Your task to perform on an android device: What's on my calendar today? Image 0: 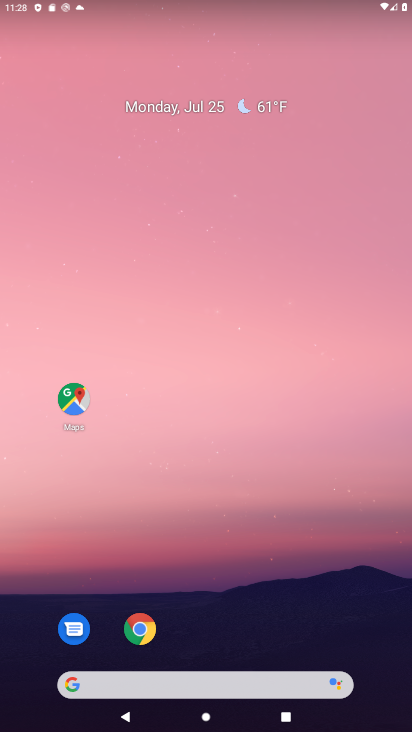
Step 0: drag from (214, 660) to (272, 94)
Your task to perform on an android device: What's on my calendar today? Image 1: 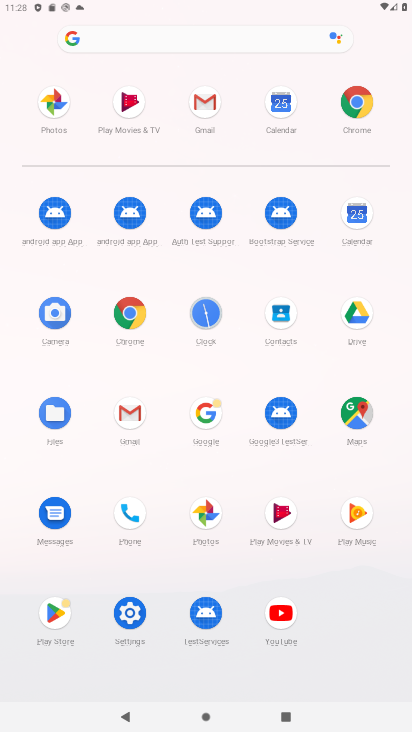
Step 1: click (357, 208)
Your task to perform on an android device: What's on my calendar today? Image 2: 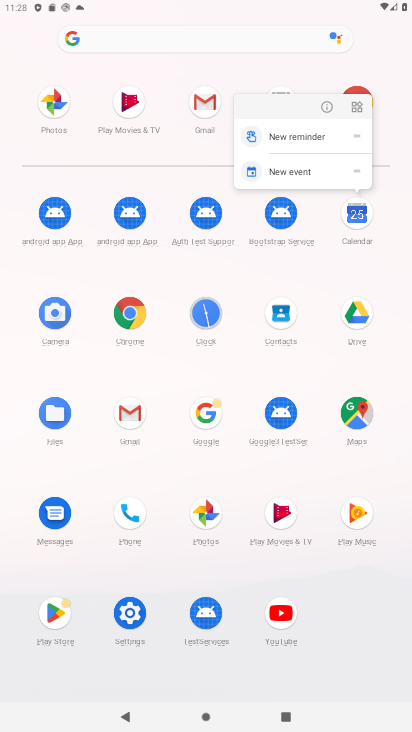
Step 2: click (320, 108)
Your task to perform on an android device: What's on my calendar today? Image 3: 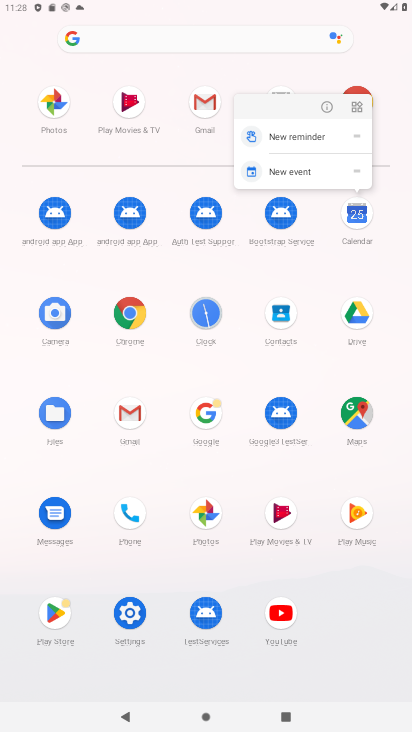
Step 3: click (320, 108)
Your task to perform on an android device: What's on my calendar today? Image 4: 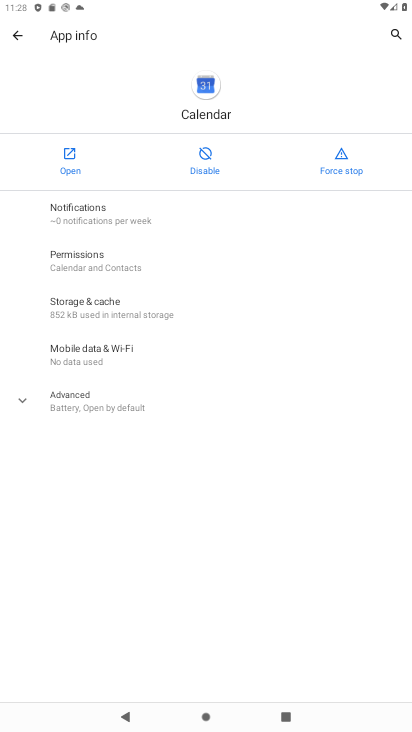
Step 4: click (72, 163)
Your task to perform on an android device: What's on my calendar today? Image 5: 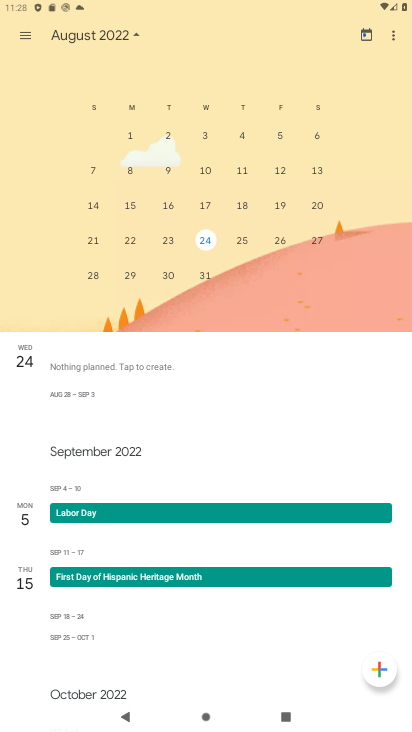
Step 5: click (369, 28)
Your task to perform on an android device: What's on my calendar today? Image 6: 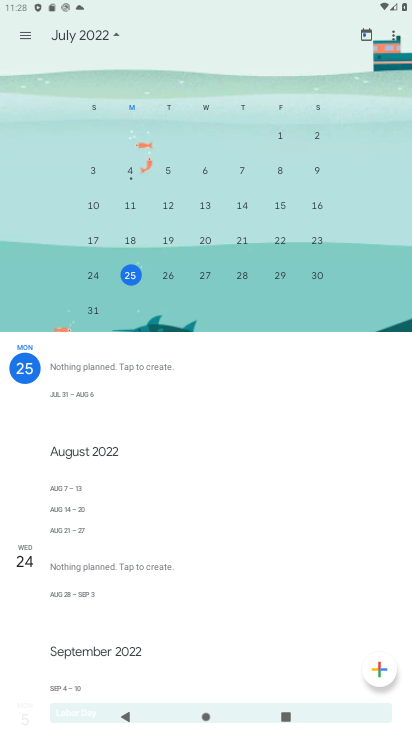
Step 6: click (127, 274)
Your task to perform on an android device: What's on my calendar today? Image 7: 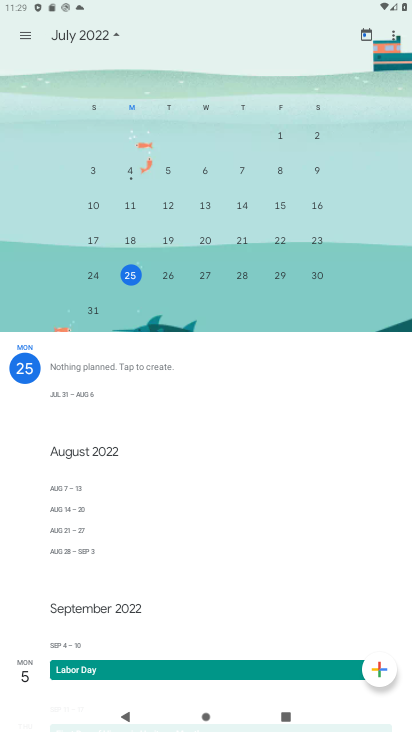
Step 7: task complete